Your task to perform on an android device: Search for usb-c on costco.com, select the first entry, add it to the cart, then select checkout. Image 0: 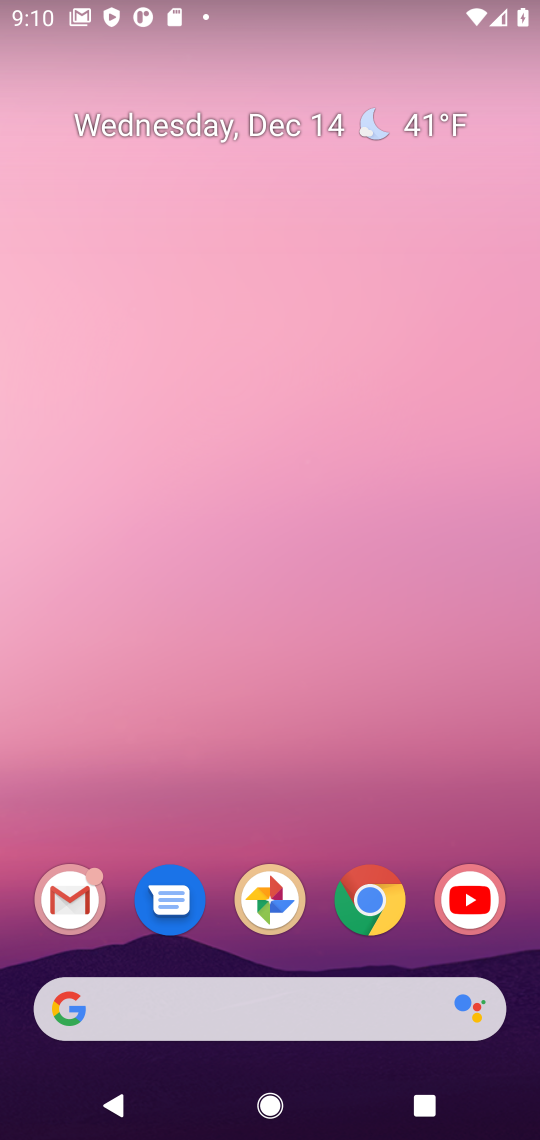
Step 0: click (367, 898)
Your task to perform on an android device: Search for usb-c on costco.com, select the first entry, add it to the cart, then select checkout. Image 1: 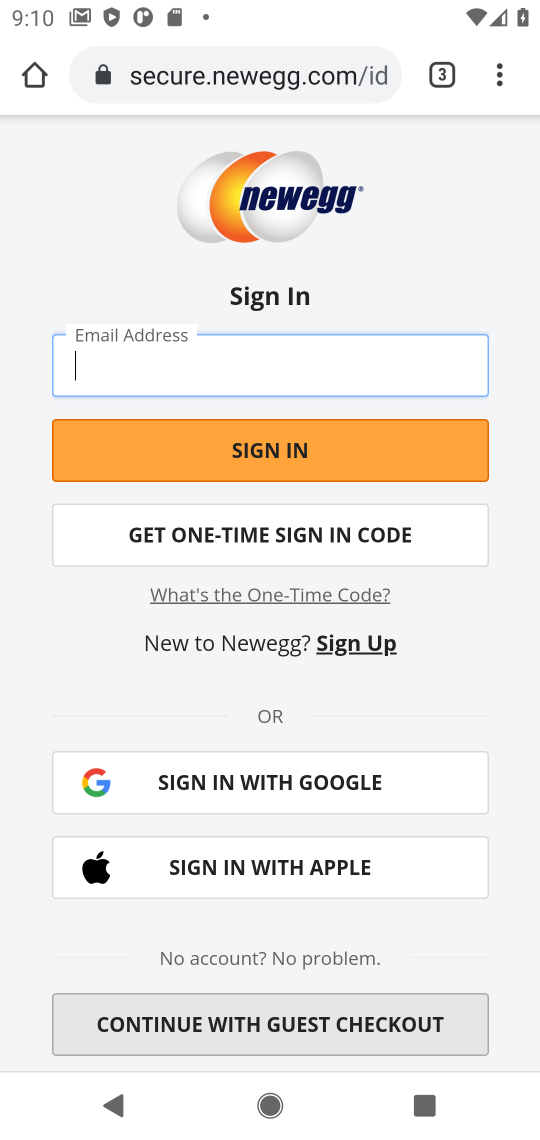
Step 1: click (218, 84)
Your task to perform on an android device: Search for usb-c on costco.com, select the first entry, add it to the cart, then select checkout. Image 2: 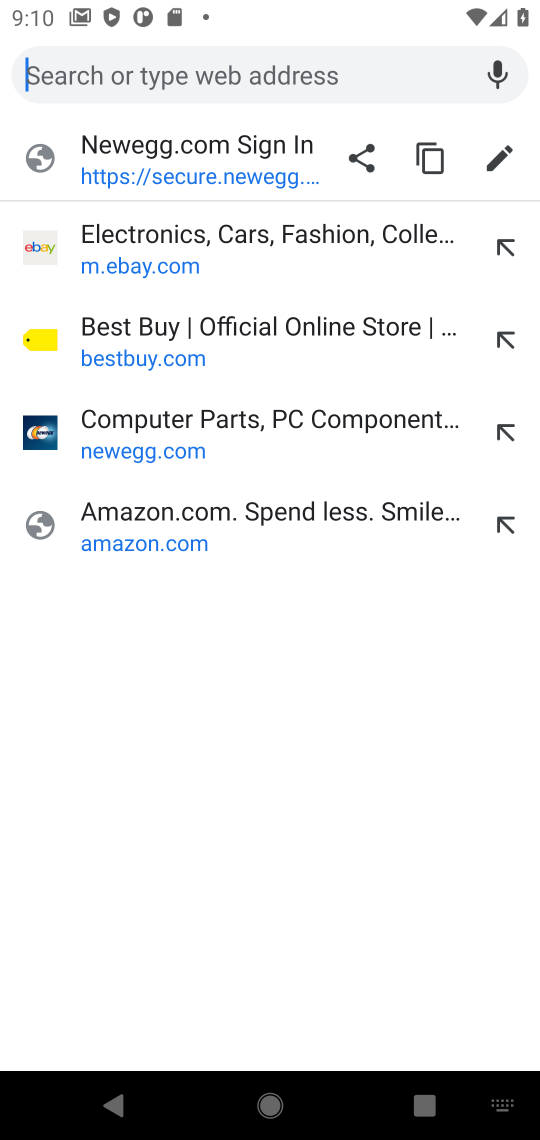
Step 2: type "costco.com"
Your task to perform on an android device: Search for usb-c on costco.com, select the first entry, add it to the cart, then select checkout. Image 3: 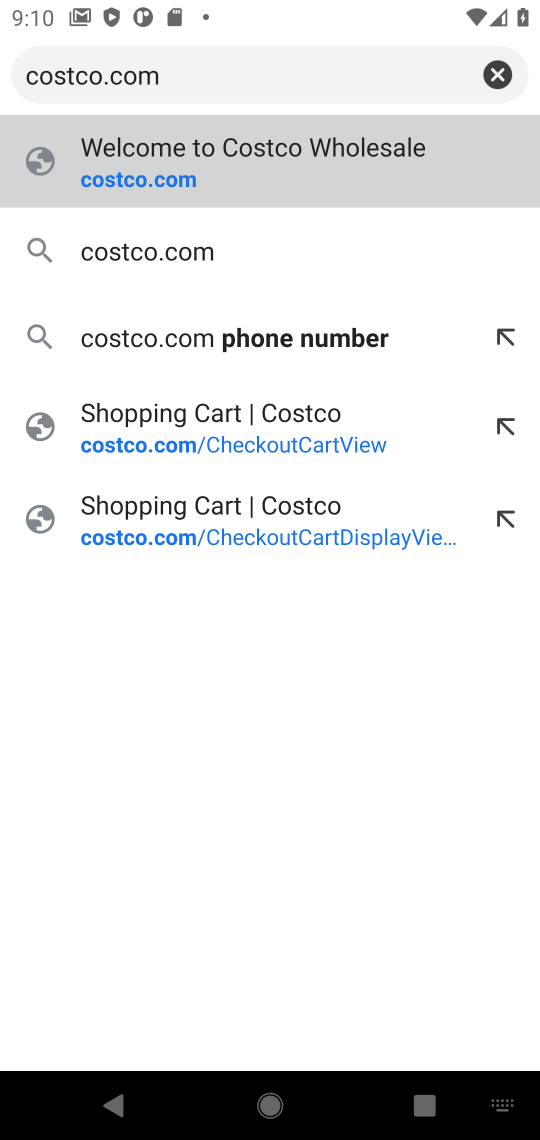
Step 3: click (130, 198)
Your task to perform on an android device: Search for usb-c on costco.com, select the first entry, add it to the cart, then select checkout. Image 4: 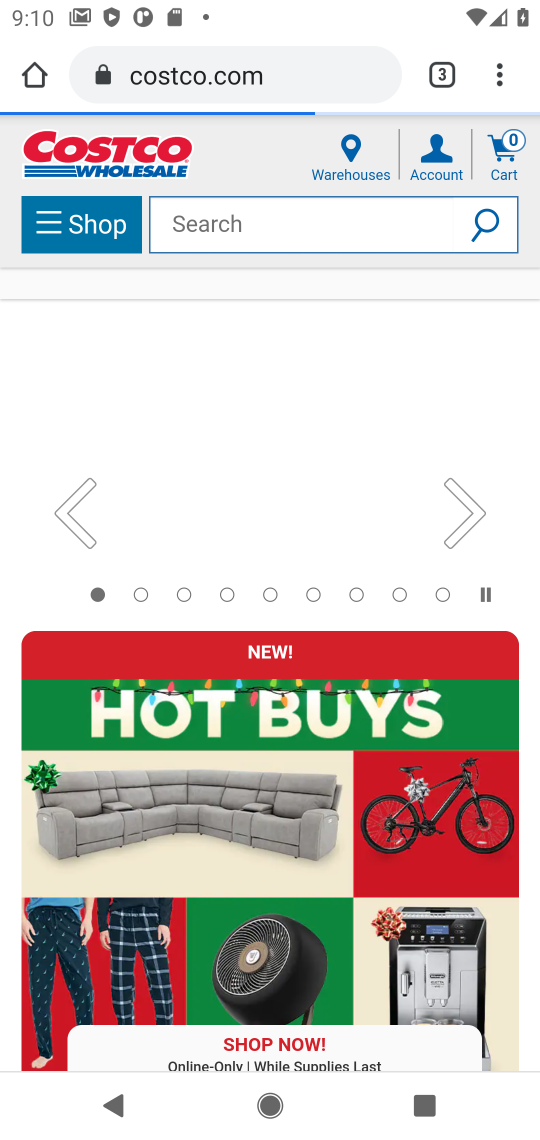
Step 4: click (181, 218)
Your task to perform on an android device: Search for usb-c on costco.com, select the first entry, add it to the cart, then select checkout. Image 5: 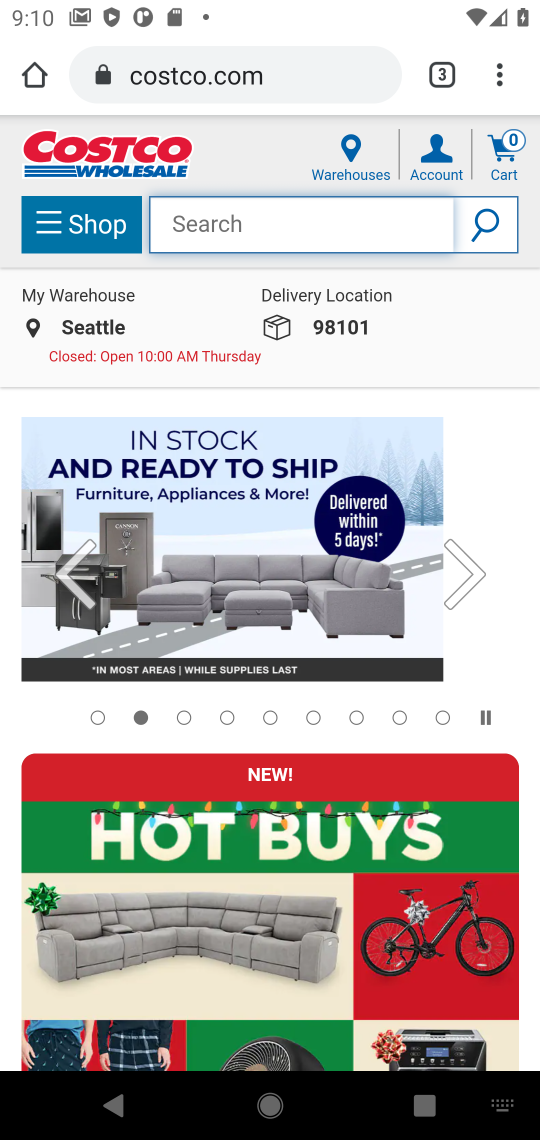
Step 5: type "usb-c"
Your task to perform on an android device: Search for usb-c on costco.com, select the first entry, add it to the cart, then select checkout. Image 6: 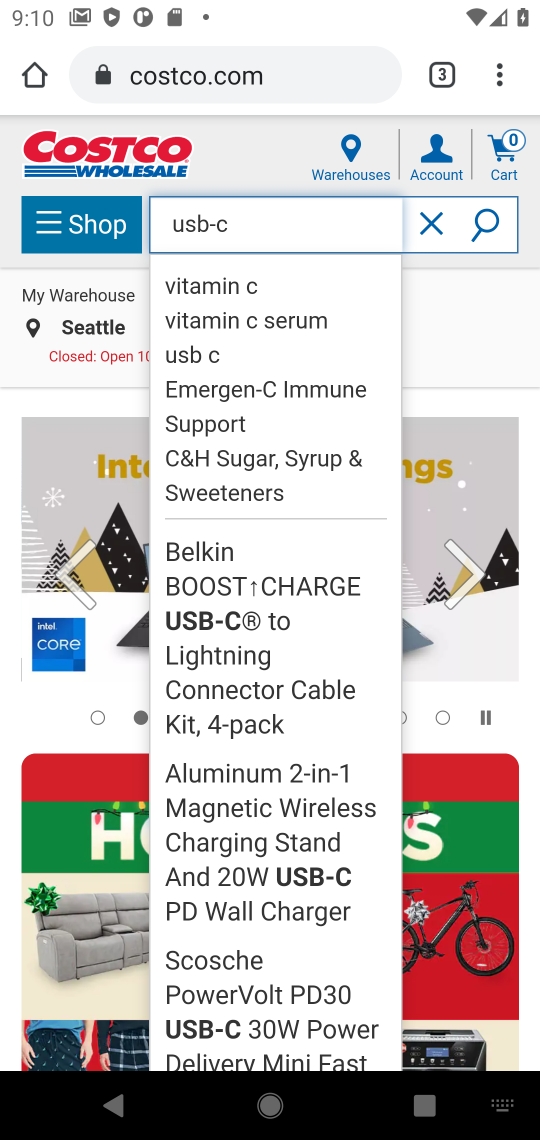
Step 6: click (478, 227)
Your task to perform on an android device: Search for usb-c on costco.com, select the first entry, add it to the cart, then select checkout. Image 7: 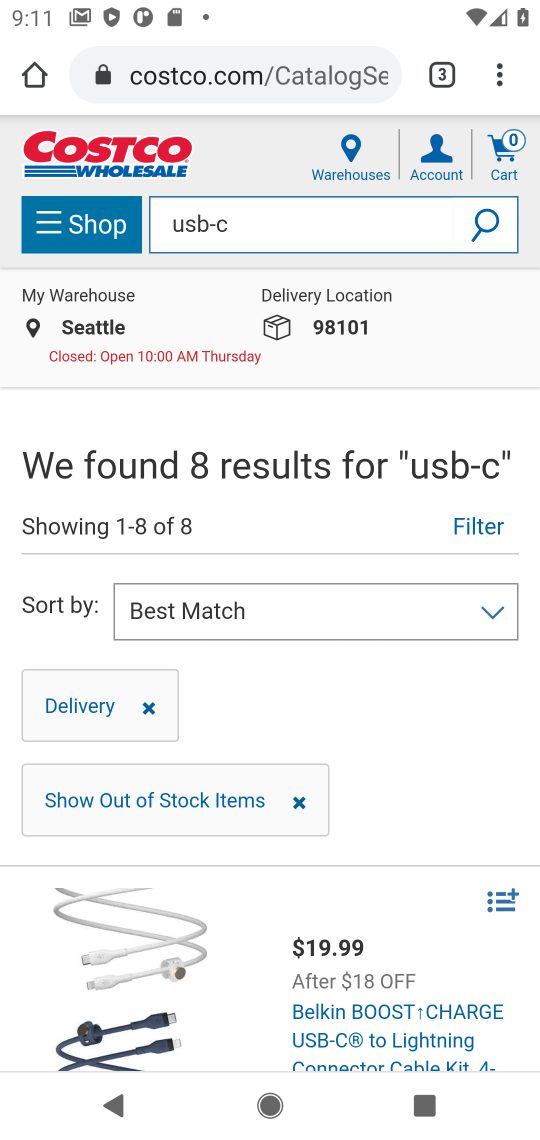
Step 7: drag from (311, 808) to (286, 430)
Your task to perform on an android device: Search for usb-c on costco.com, select the first entry, add it to the cart, then select checkout. Image 8: 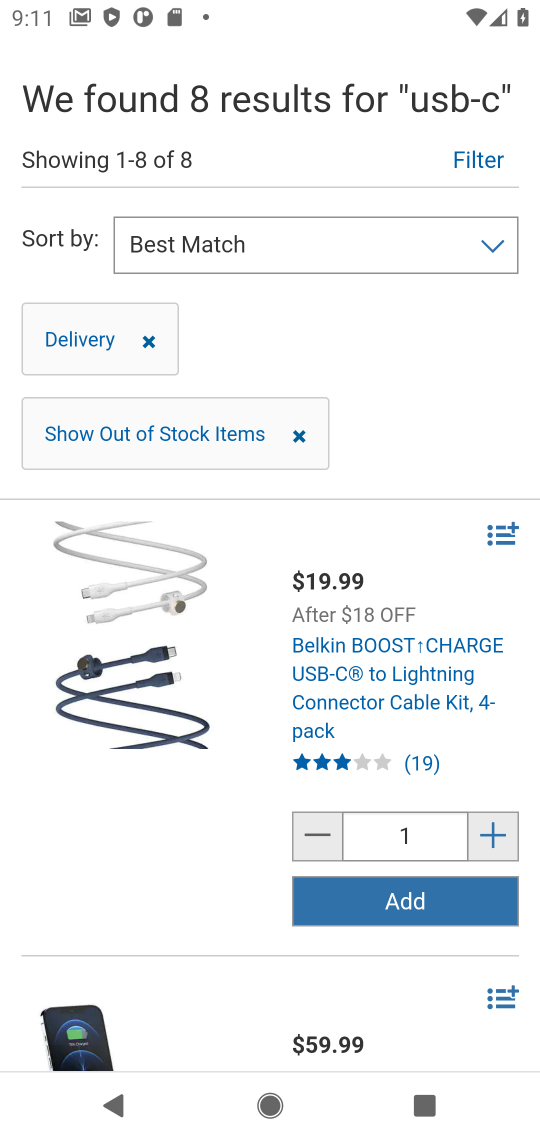
Step 8: click (388, 909)
Your task to perform on an android device: Search for usb-c on costco.com, select the first entry, add it to the cart, then select checkout. Image 9: 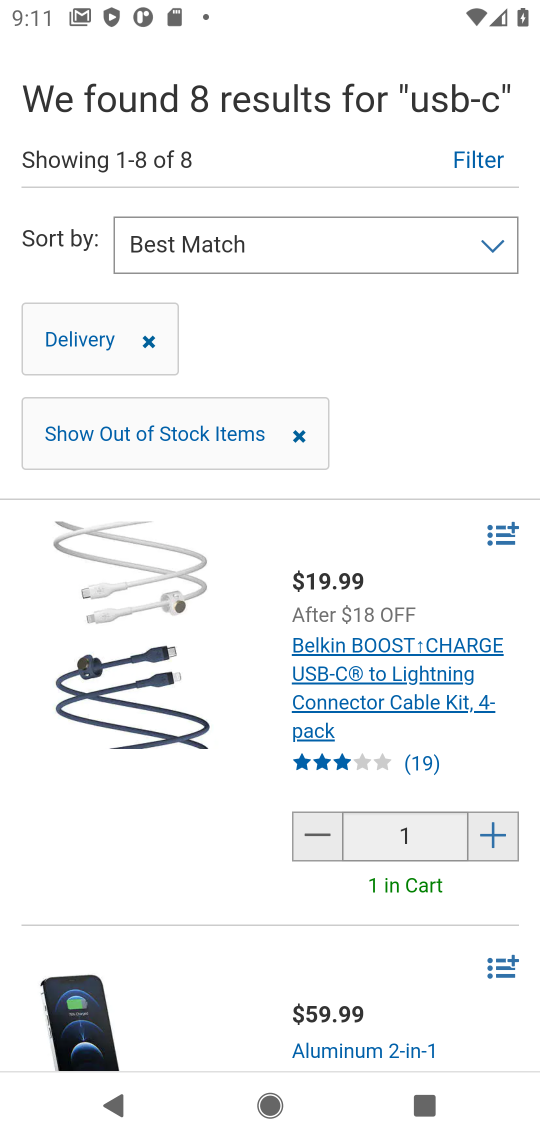
Step 9: drag from (349, 365) to (309, 663)
Your task to perform on an android device: Search for usb-c on costco.com, select the first entry, add it to the cart, then select checkout. Image 10: 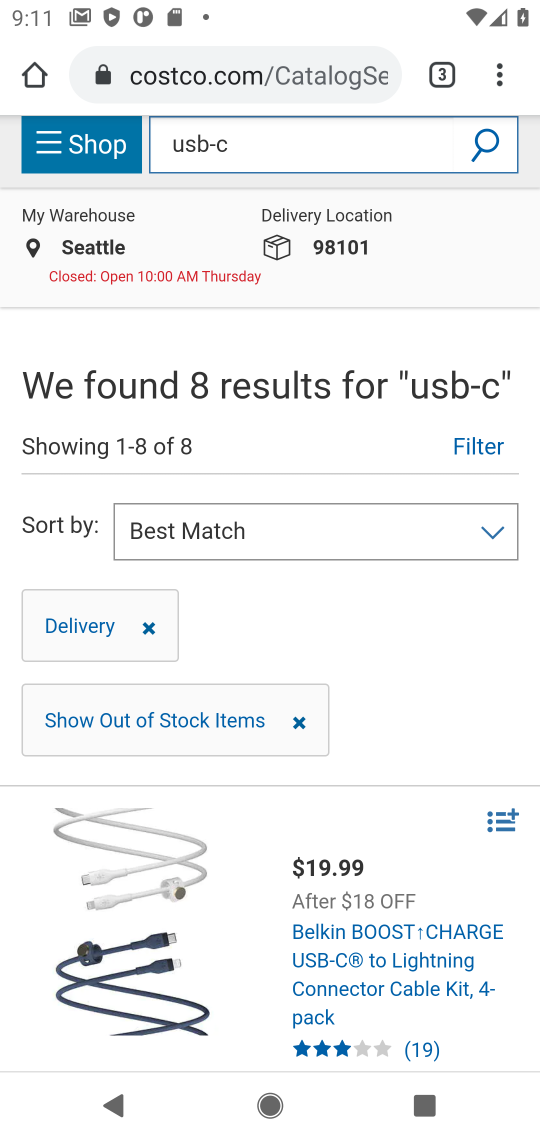
Step 10: drag from (481, 212) to (463, 419)
Your task to perform on an android device: Search for usb-c on costco.com, select the first entry, add it to the cart, then select checkout. Image 11: 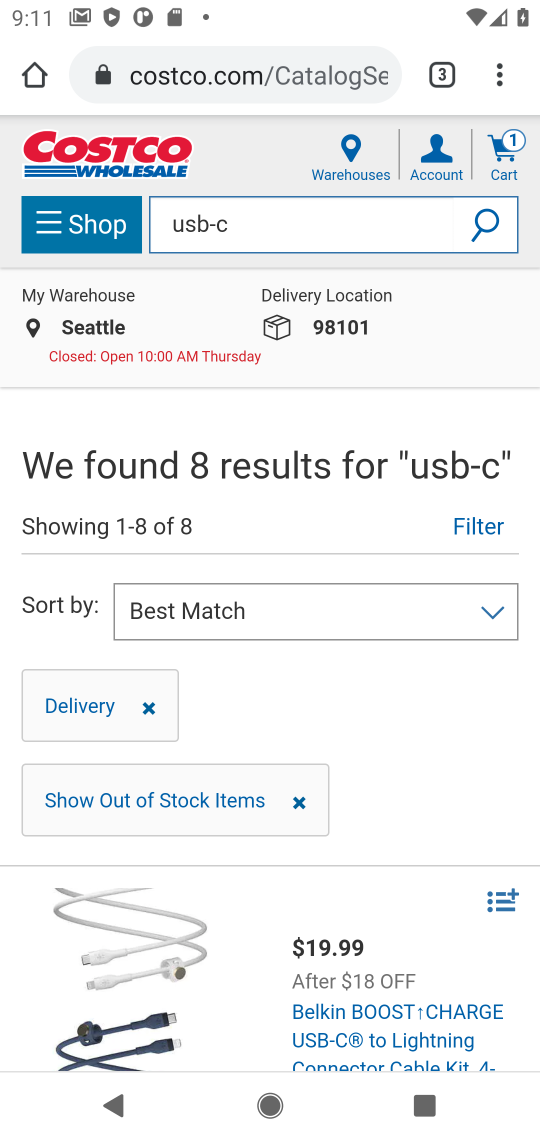
Step 11: click (504, 162)
Your task to perform on an android device: Search for usb-c on costco.com, select the first entry, add it to the cart, then select checkout. Image 12: 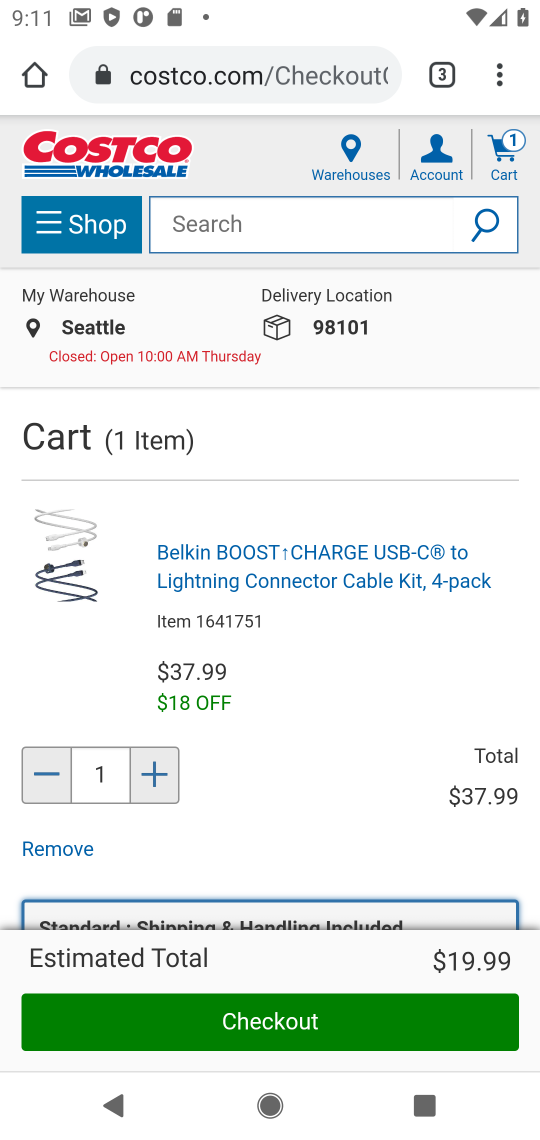
Step 12: click (255, 1025)
Your task to perform on an android device: Search for usb-c on costco.com, select the first entry, add it to the cart, then select checkout. Image 13: 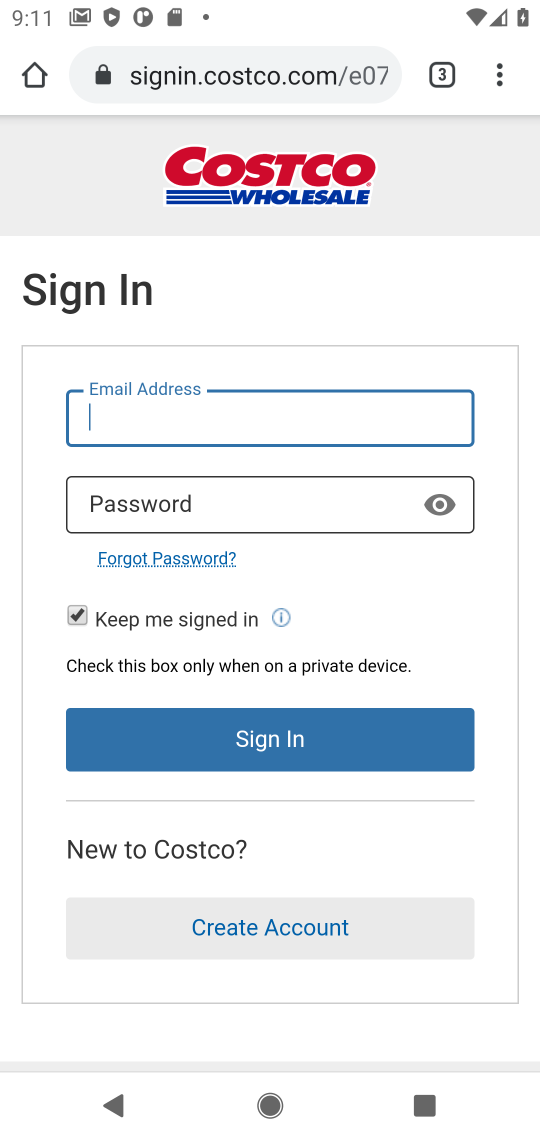
Step 13: task complete